Your task to perform on an android device: Open network settings Image 0: 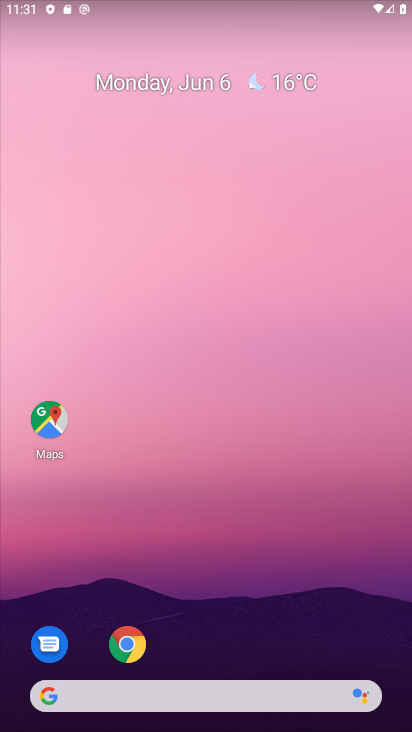
Step 0: drag from (203, 627) to (291, 151)
Your task to perform on an android device: Open network settings Image 1: 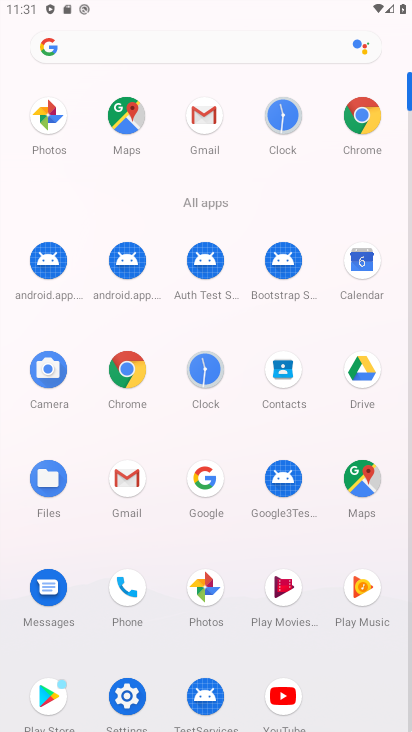
Step 1: click (126, 705)
Your task to perform on an android device: Open network settings Image 2: 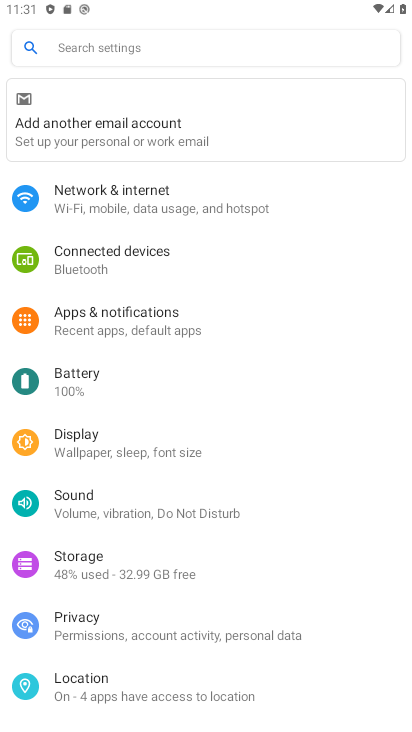
Step 2: click (183, 202)
Your task to perform on an android device: Open network settings Image 3: 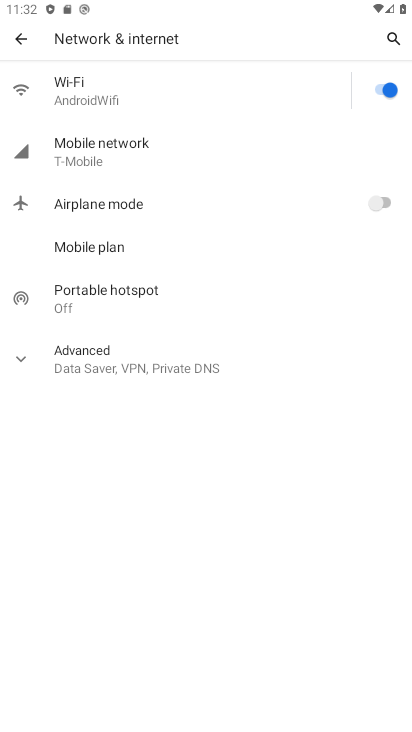
Step 3: click (145, 140)
Your task to perform on an android device: Open network settings Image 4: 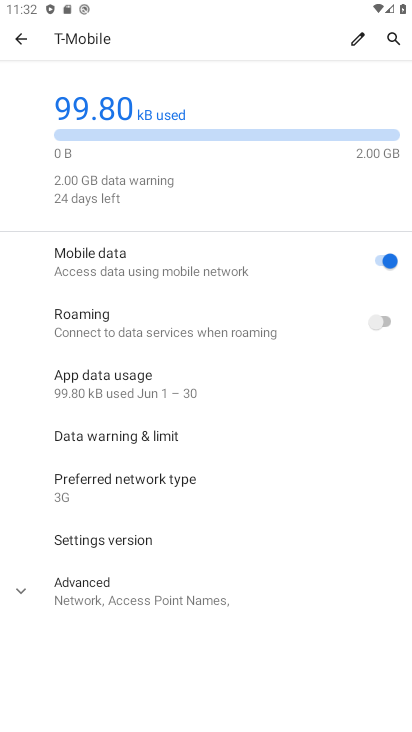
Step 4: task complete